Your task to perform on an android device: turn off picture-in-picture Image 0: 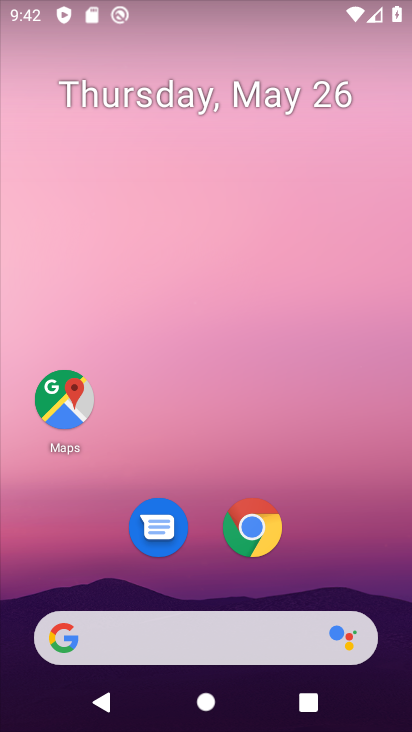
Step 0: click (240, 535)
Your task to perform on an android device: turn off picture-in-picture Image 1: 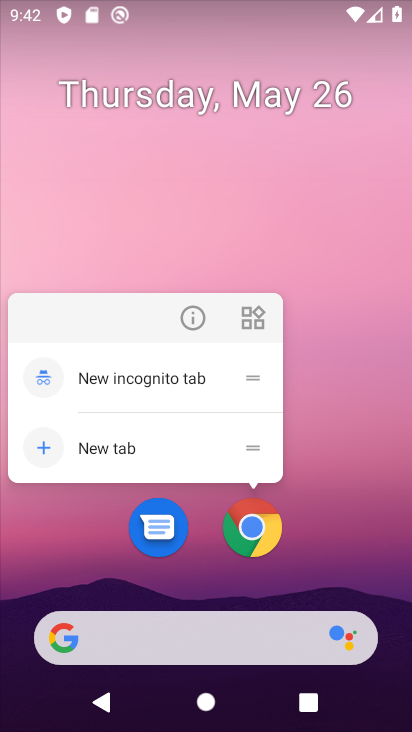
Step 1: click (195, 310)
Your task to perform on an android device: turn off picture-in-picture Image 2: 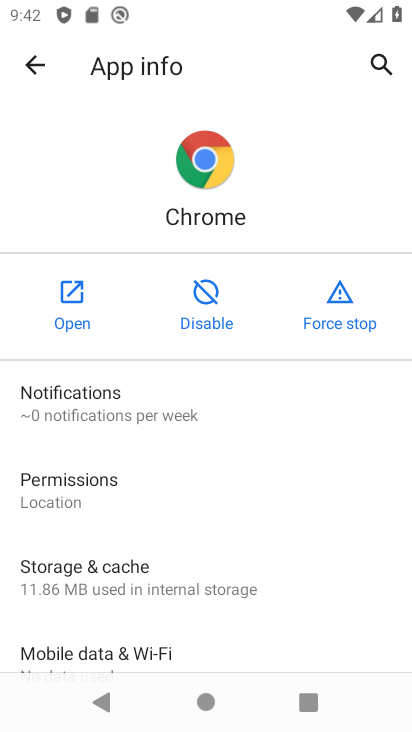
Step 2: drag from (264, 542) to (263, 156)
Your task to perform on an android device: turn off picture-in-picture Image 3: 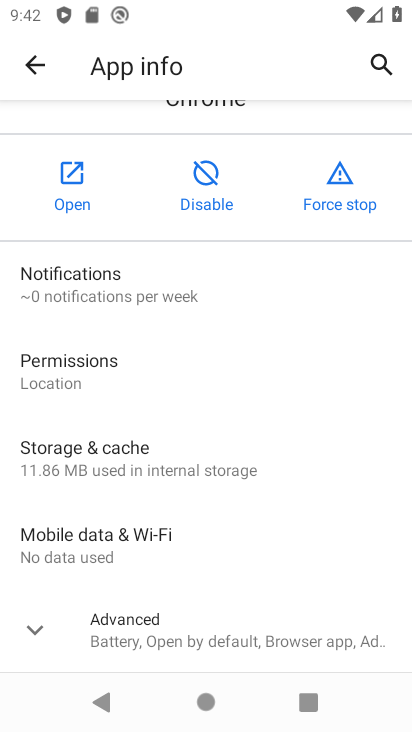
Step 3: click (177, 637)
Your task to perform on an android device: turn off picture-in-picture Image 4: 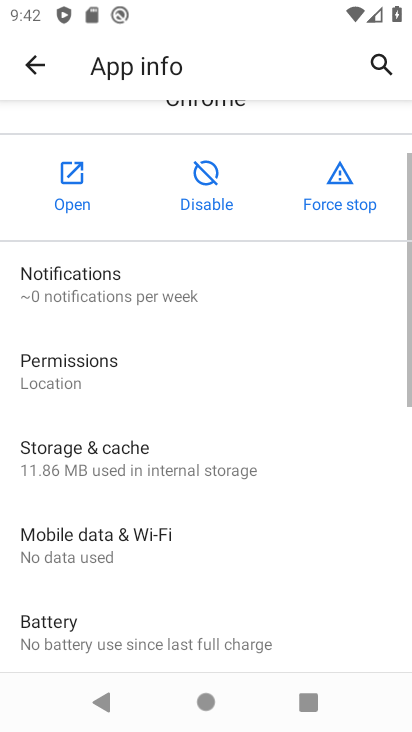
Step 4: drag from (264, 607) to (331, 250)
Your task to perform on an android device: turn off picture-in-picture Image 5: 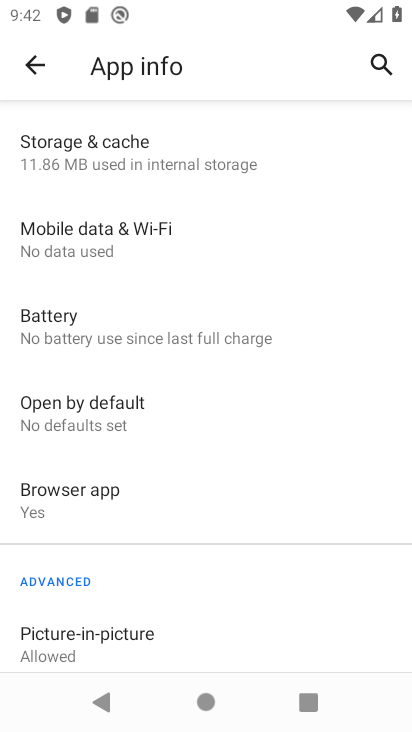
Step 5: click (97, 641)
Your task to perform on an android device: turn off picture-in-picture Image 6: 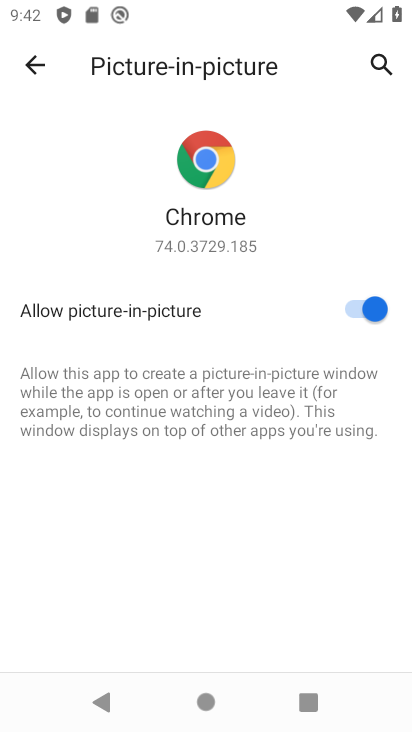
Step 6: click (359, 311)
Your task to perform on an android device: turn off picture-in-picture Image 7: 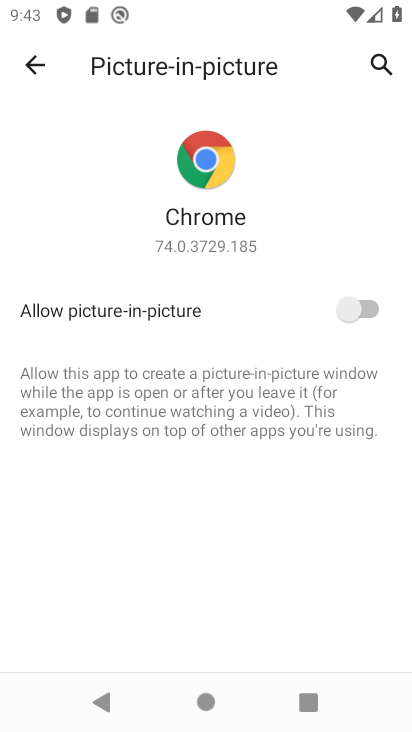
Step 7: task complete